Your task to perform on an android device: open wifi settings Image 0: 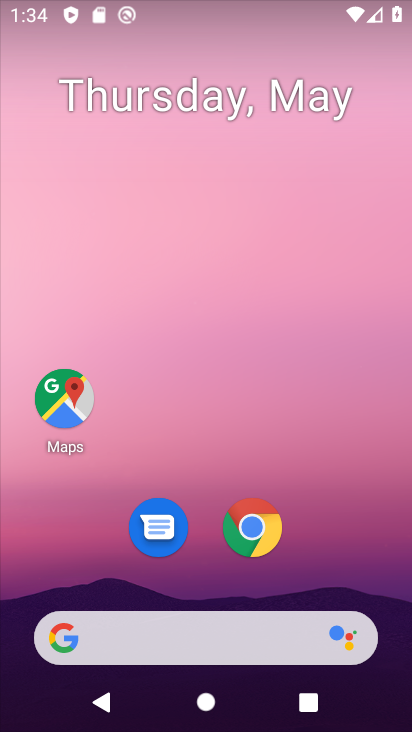
Step 0: drag from (223, 400) to (240, 266)
Your task to perform on an android device: open wifi settings Image 1: 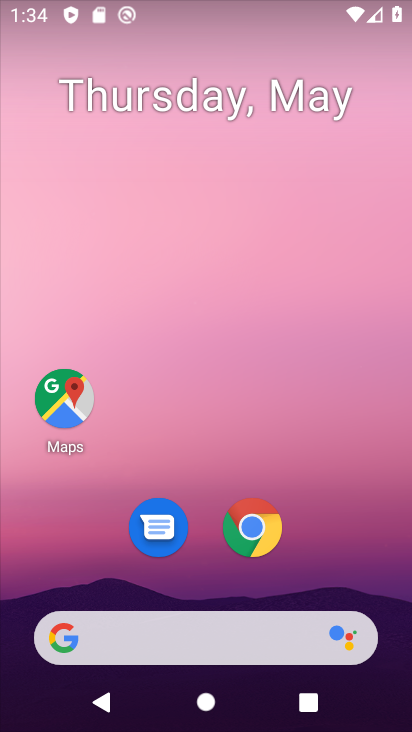
Step 1: drag from (212, 582) to (157, 33)
Your task to perform on an android device: open wifi settings Image 2: 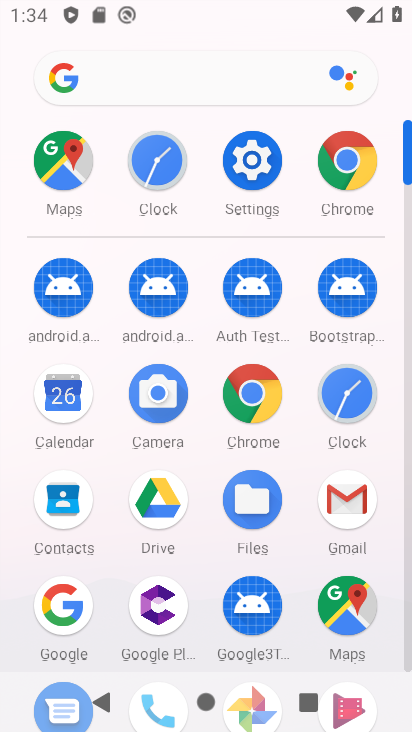
Step 2: click (259, 151)
Your task to perform on an android device: open wifi settings Image 3: 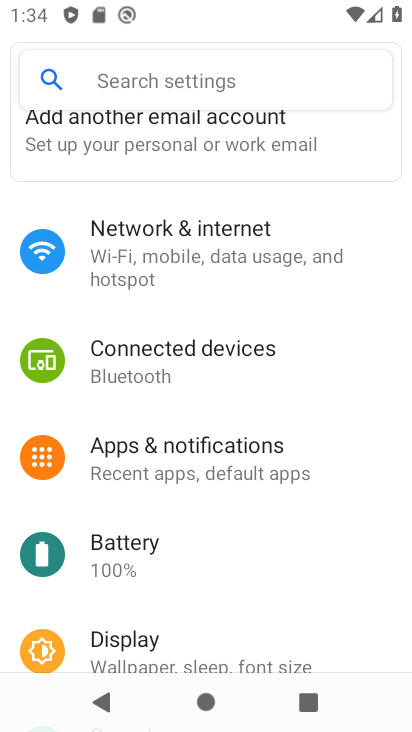
Step 3: click (190, 250)
Your task to perform on an android device: open wifi settings Image 4: 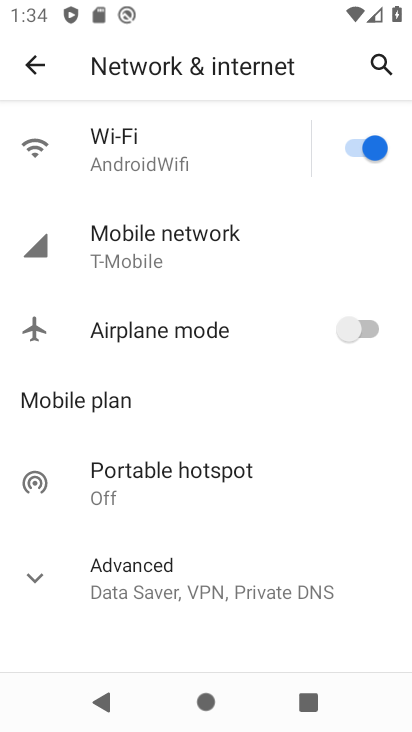
Step 4: click (225, 153)
Your task to perform on an android device: open wifi settings Image 5: 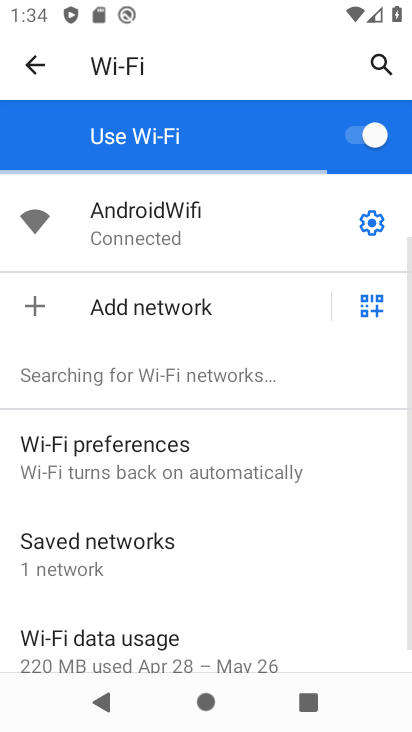
Step 5: task complete